Your task to perform on an android device: What's the price of the new iPhone on eBay? Image 0: 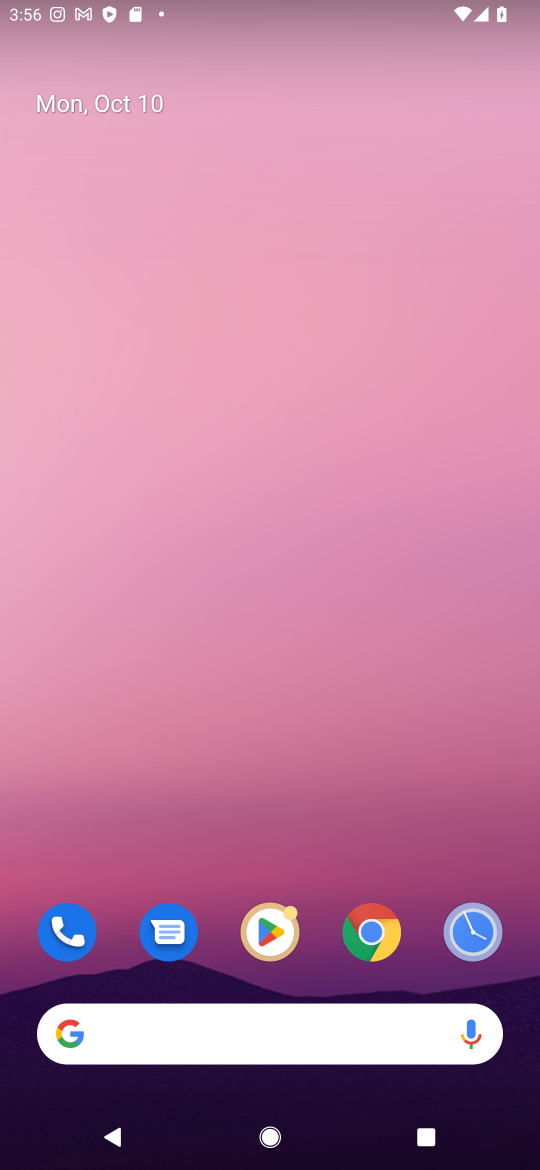
Step 0: press home button
Your task to perform on an android device: What's the price of the new iPhone on eBay? Image 1: 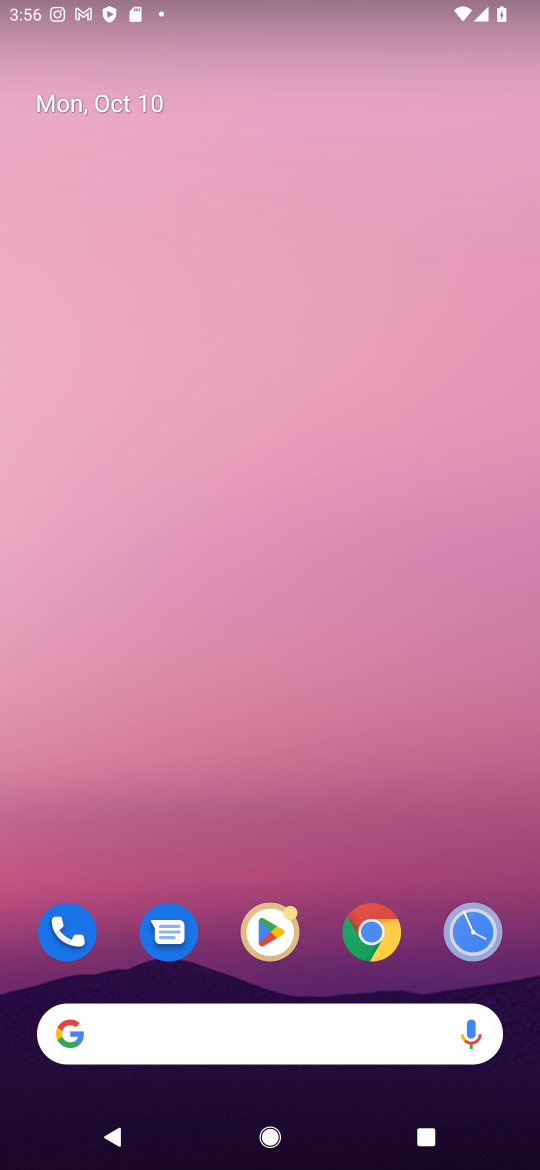
Step 1: click (261, 1033)
Your task to perform on an android device: What's the price of the new iPhone on eBay? Image 2: 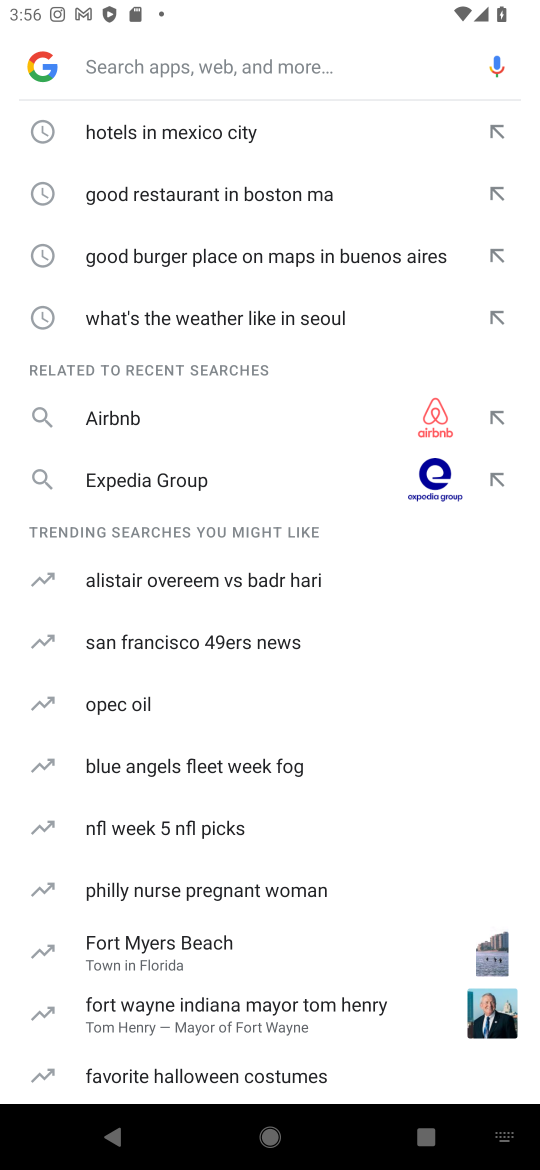
Step 2: type "What's the price of the new iPhone on eBay"
Your task to perform on an android device: What's the price of the new iPhone on eBay? Image 3: 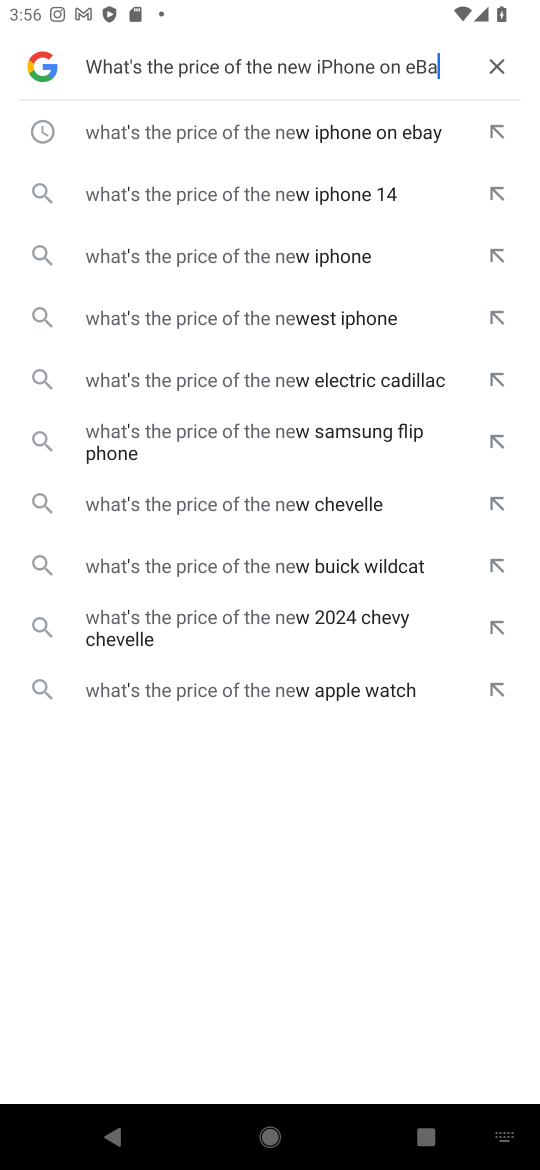
Step 3: press enter
Your task to perform on an android device: What's the price of the new iPhone on eBay? Image 4: 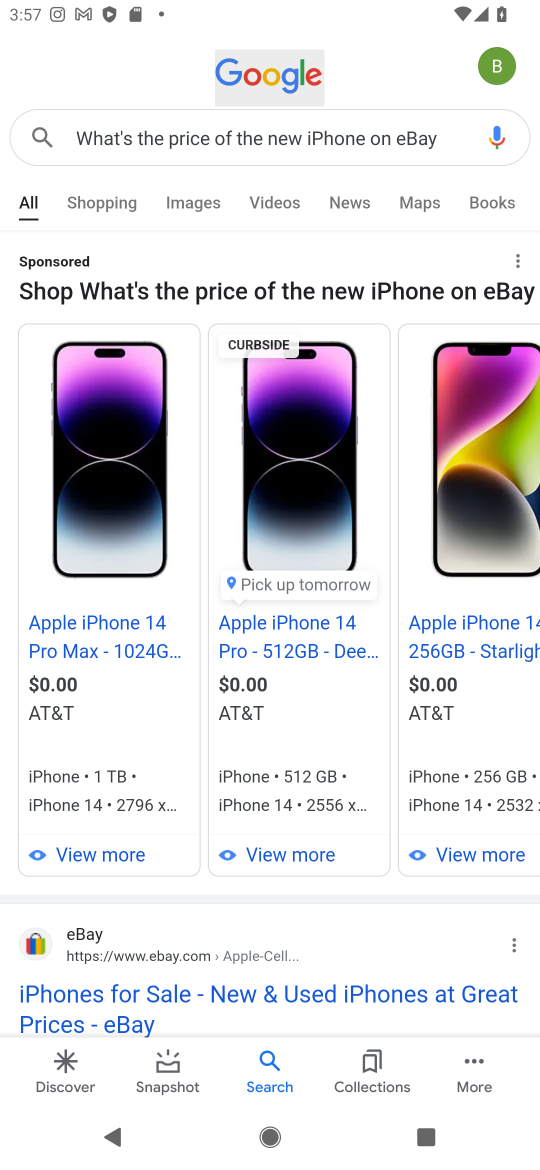
Step 4: click (249, 1001)
Your task to perform on an android device: What's the price of the new iPhone on eBay? Image 5: 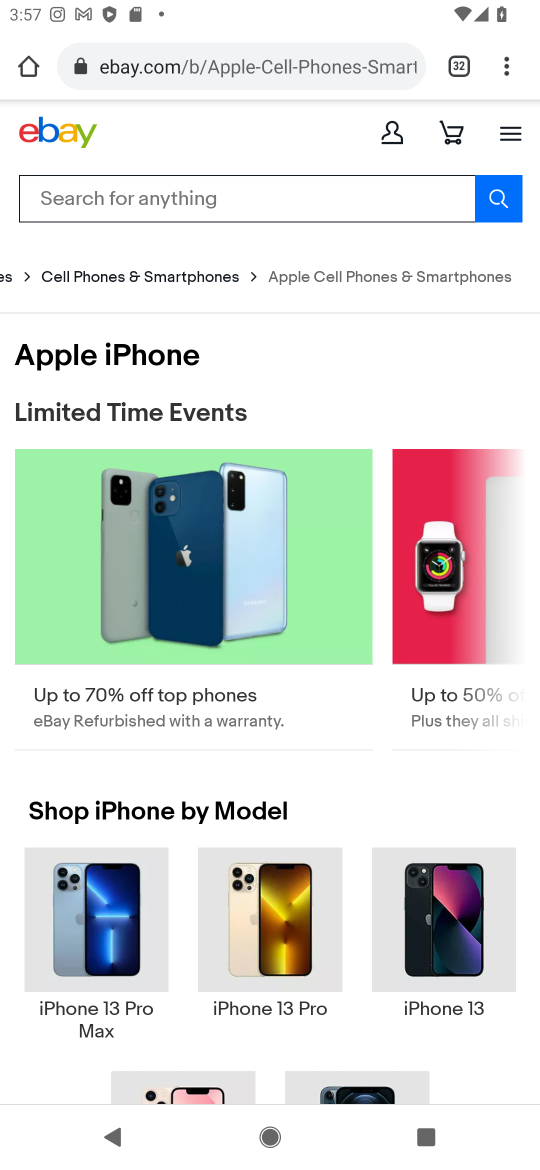
Step 5: task complete